Your task to perform on an android device: Check the settings for the Amazon Prime Video app Image 0: 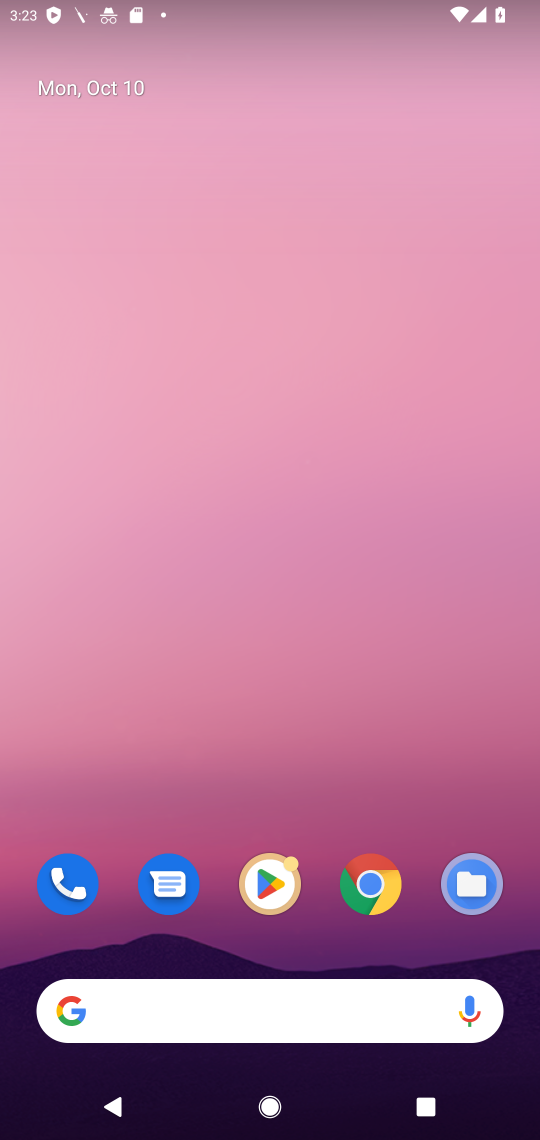
Step 0: drag from (307, 947) to (294, 26)
Your task to perform on an android device: Check the settings for the Amazon Prime Video app Image 1: 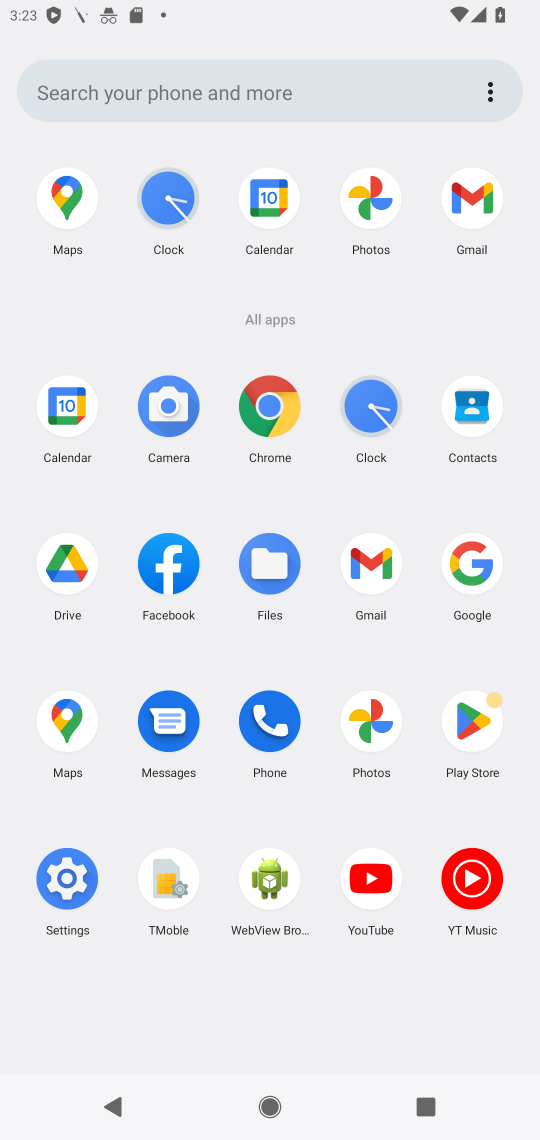
Step 1: task complete